Your task to perform on an android device: turn off smart reply in the gmail app Image 0: 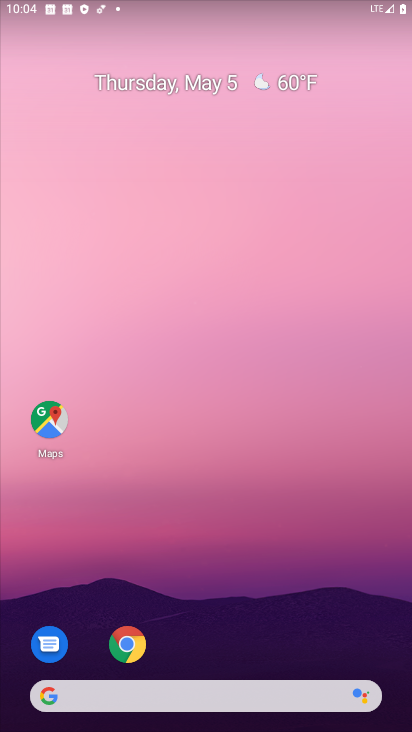
Step 0: drag from (217, 633) to (312, 156)
Your task to perform on an android device: turn off smart reply in the gmail app Image 1: 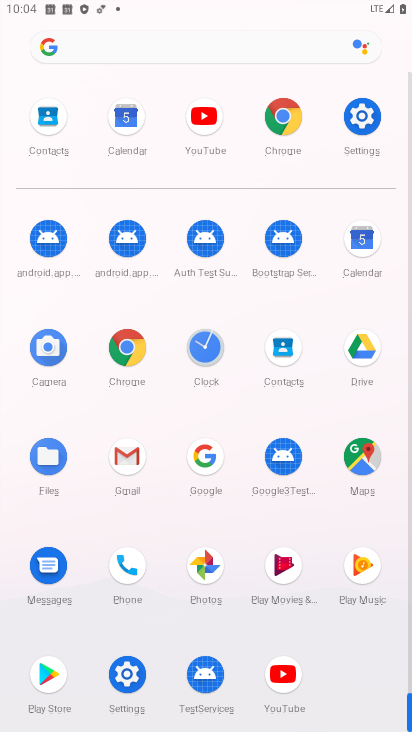
Step 1: click (131, 454)
Your task to perform on an android device: turn off smart reply in the gmail app Image 2: 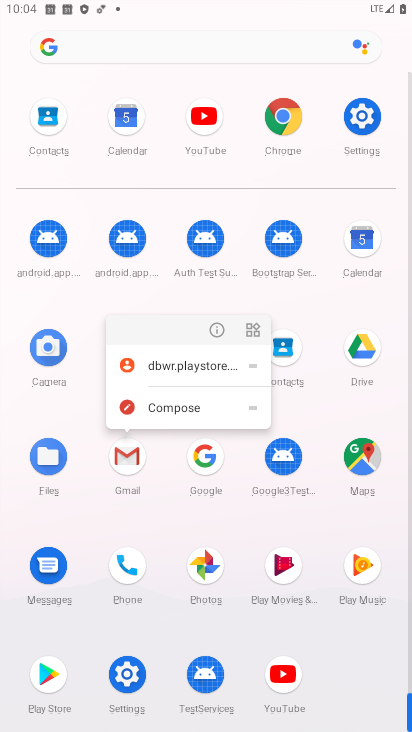
Step 2: click (214, 335)
Your task to perform on an android device: turn off smart reply in the gmail app Image 3: 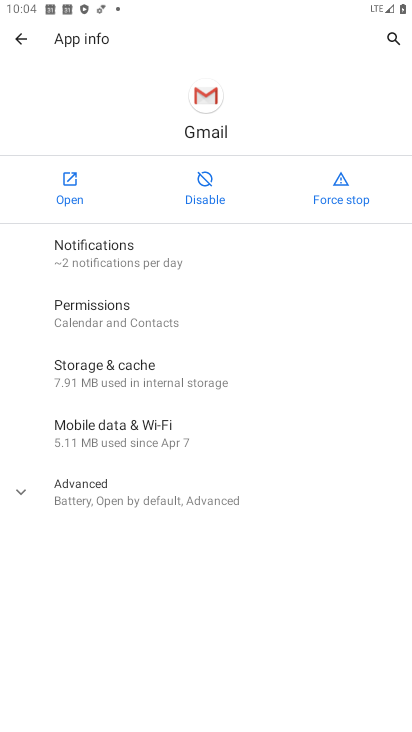
Step 3: click (76, 183)
Your task to perform on an android device: turn off smart reply in the gmail app Image 4: 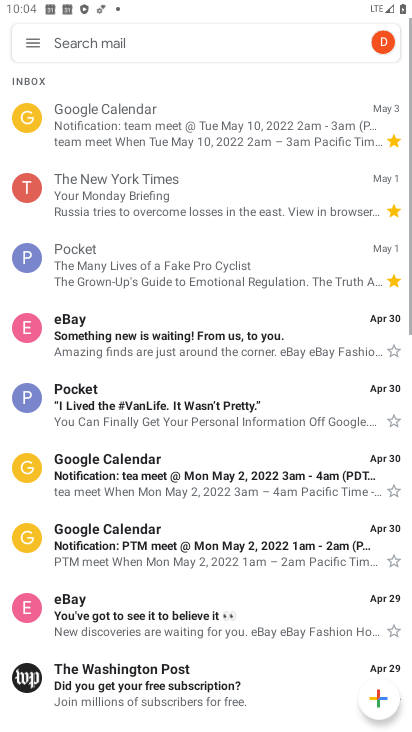
Step 4: click (30, 49)
Your task to perform on an android device: turn off smart reply in the gmail app Image 5: 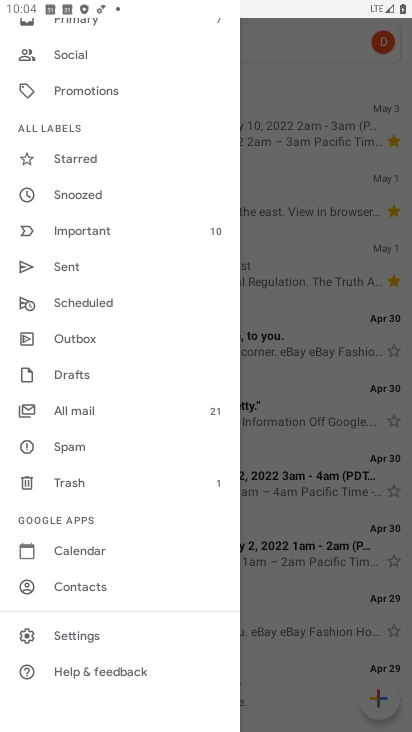
Step 5: click (82, 637)
Your task to perform on an android device: turn off smart reply in the gmail app Image 6: 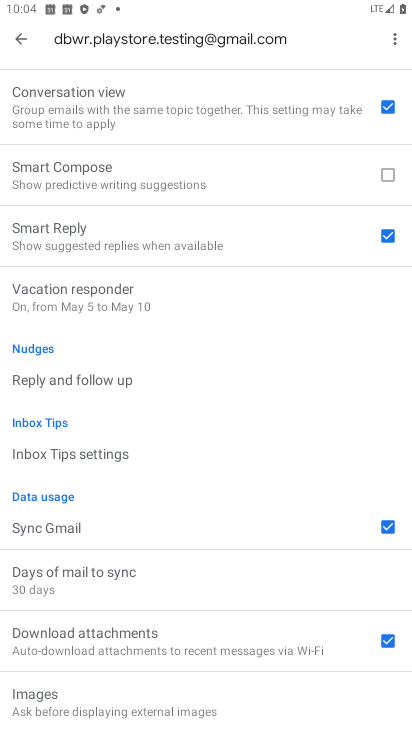
Step 6: drag from (112, 656) to (156, 271)
Your task to perform on an android device: turn off smart reply in the gmail app Image 7: 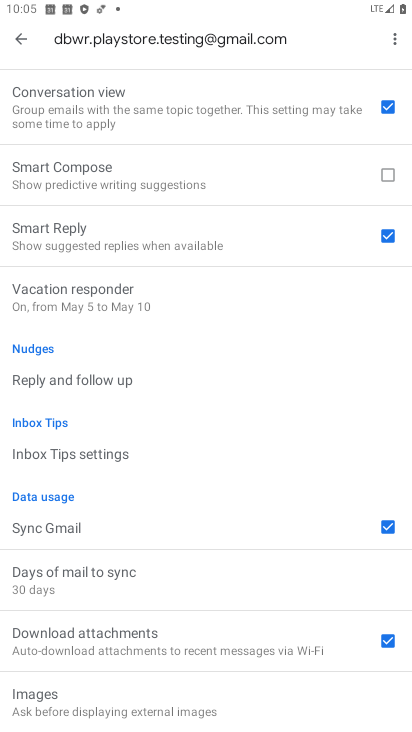
Step 7: click (301, 254)
Your task to perform on an android device: turn off smart reply in the gmail app Image 8: 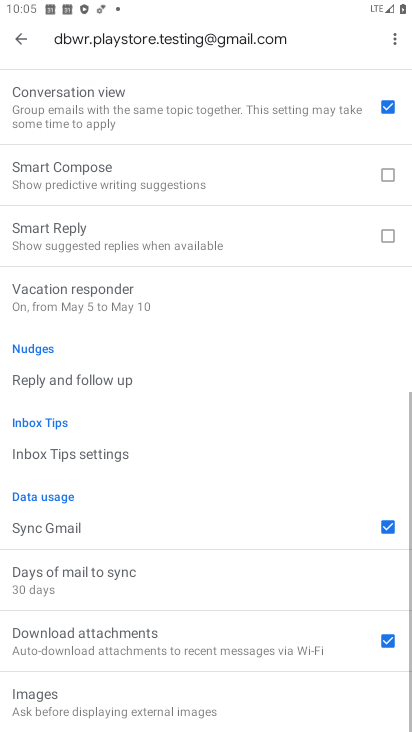
Step 8: task complete